Your task to perform on an android device: Open accessibility settings Image 0: 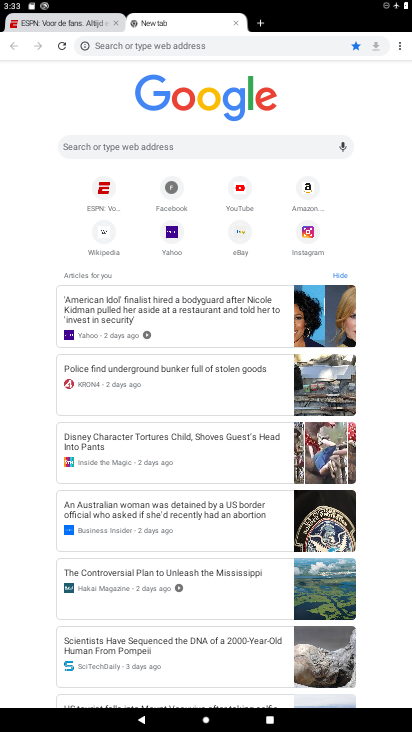
Step 0: press home button
Your task to perform on an android device: Open accessibility settings Image 1: 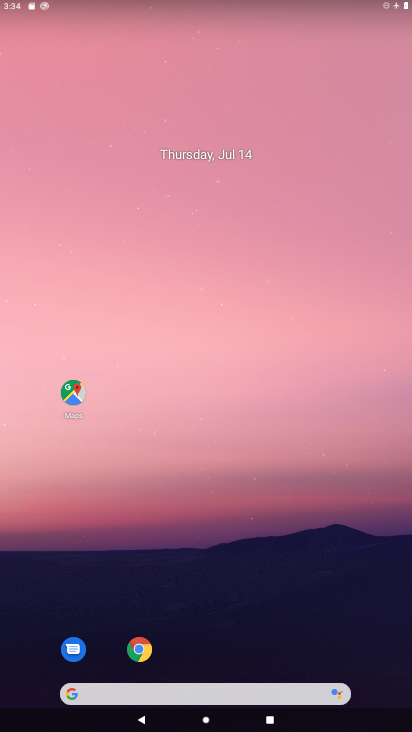
Step 1: drag from (224, 624) to (233, 169)
Your task to perform on an android device: Open accessibility settings Image 2: 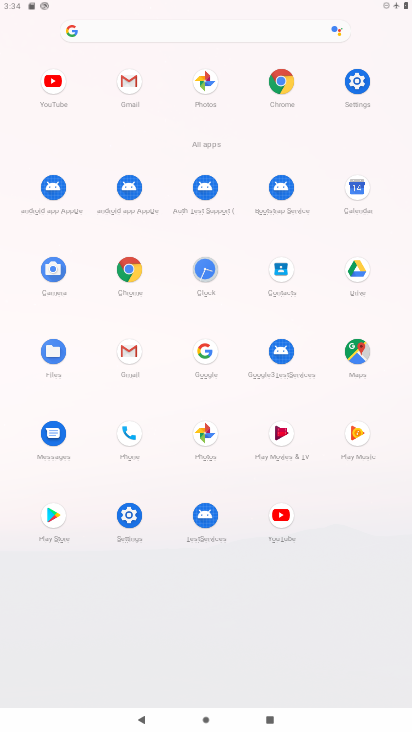
Step 2: click (344, 76)
Your task to perform on an android device: Open accessibility settings Image 3: 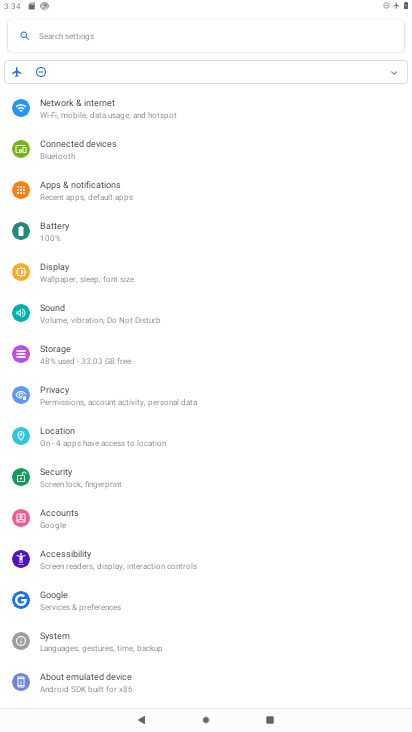
Step 3: click (98, 563)
Your task to perform on an android device: Open accessibility settings Image 4: 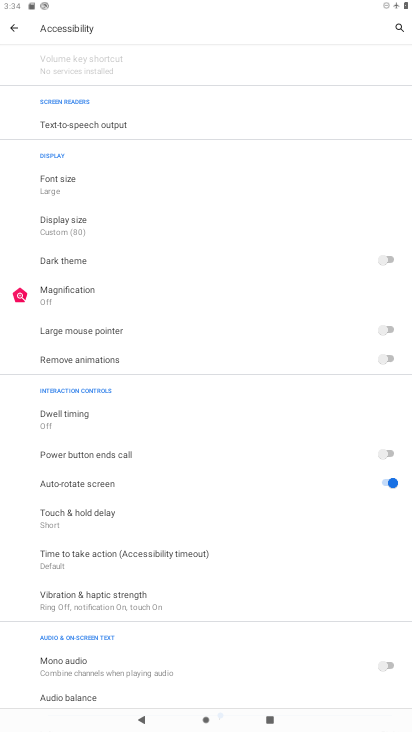
Step 4: task complete